Your task to perform on an android device: move an email to a new category in the gmail app Image 0: 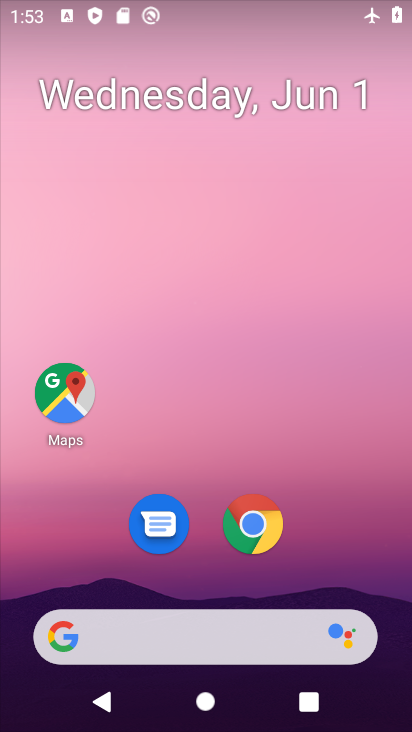
Step 0: drag from (335, 543) to (362, 64)
Your task to perform on an android device: move an email to a new category in the gmail app Image 1: 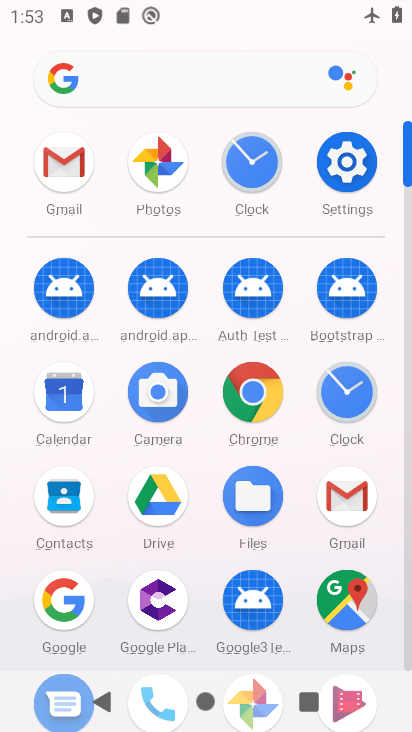
Step 1: click (60, 169)
Your task to perform on an android device: move an email to a new category in the gmail app Image 2: 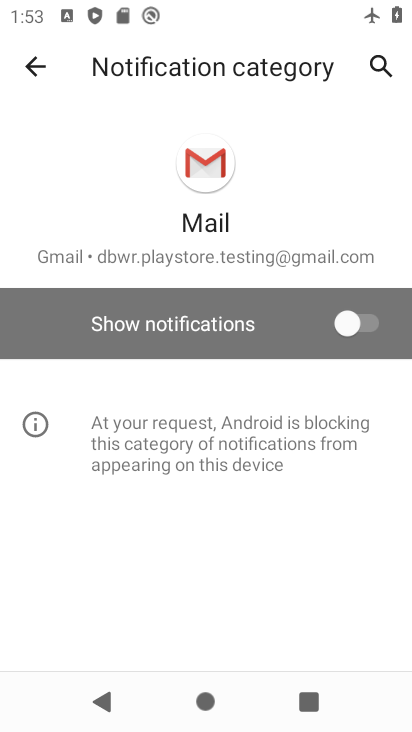
Step 2: click (40, 60)
Your task to perform on an android device: move an email to a new category in the gmail app Image 3: 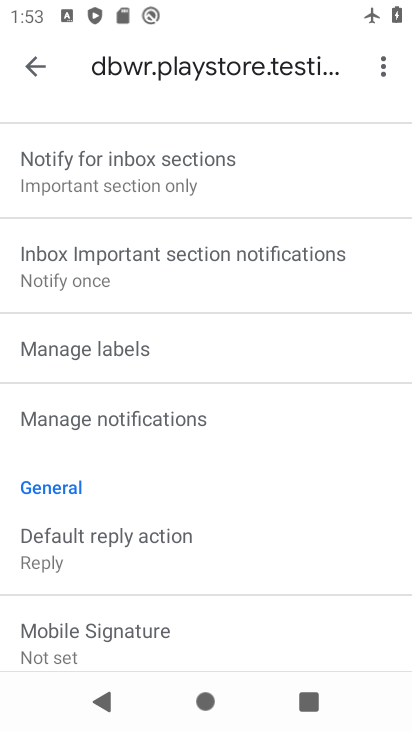
Step 3: click (40, 62)
Your task to perform on an android device: move an email to a new category in the gmail app Image 4: 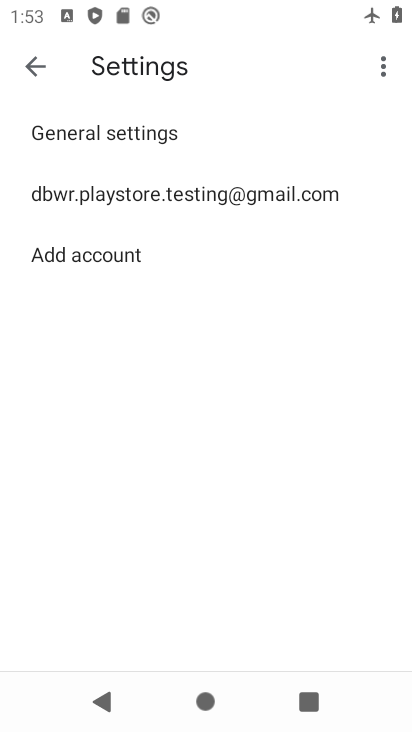
Step 4: click (47, 61)
Your task to perform on an android device: move an email to a new category in the gmail app Image 5: 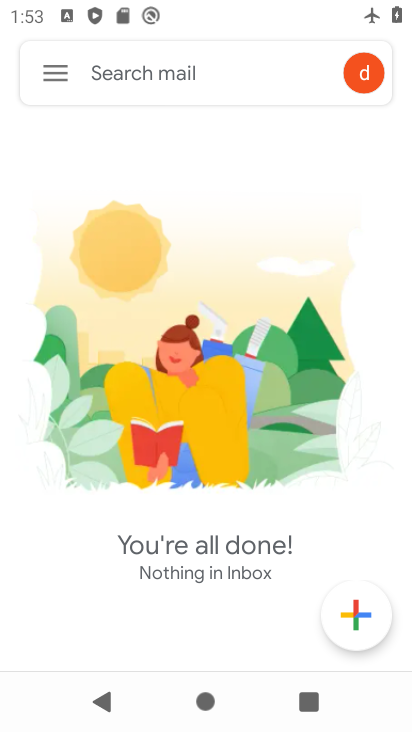
Step 5: click (61, 69)
Your task to perform on an android device: move an email to a new category in the gmail app Image 6: 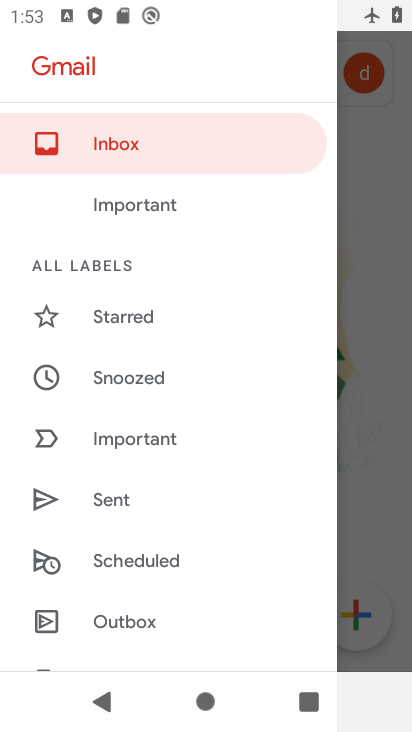
Step 6: drag from (174, 521) to (224, 192)
Your task to perform on an android device: move an email to a new category in the gmail app Image 7: 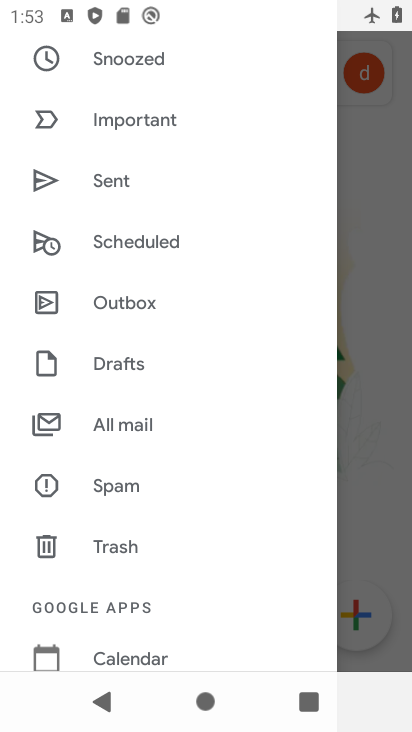
Step 7: click (175, 428)
Your task to perform on an android device: move an email to a new category in the gmail app Image 8: 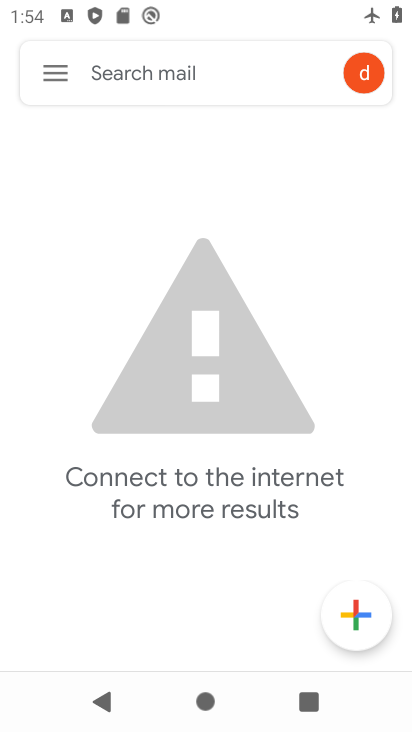
Step 8: task complete